Your task to perform on an android device: set the timer Image 0: 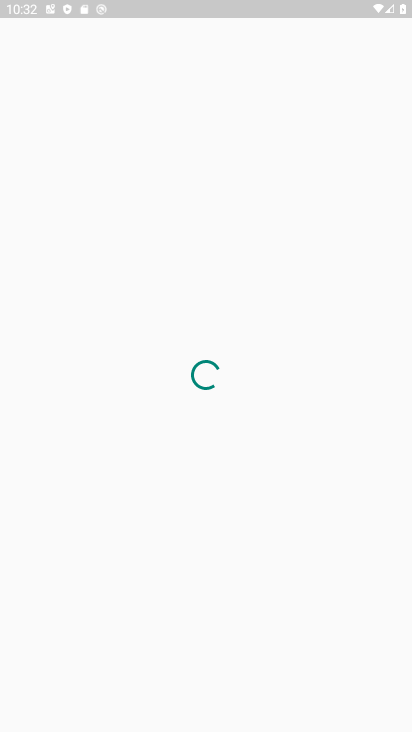
Step 0: press home button
Your task to perform on an android device: set the timer Image 1: 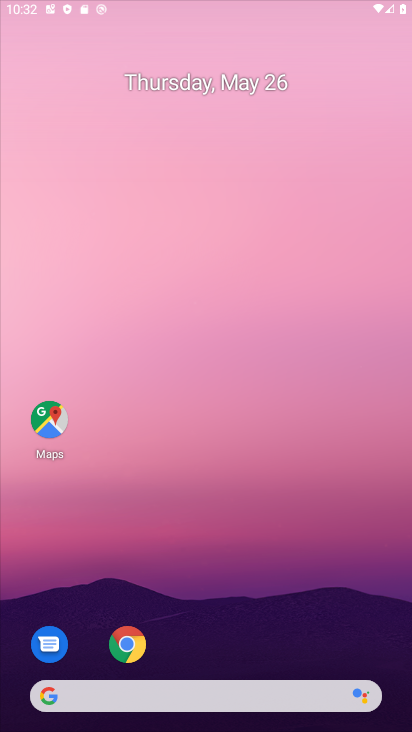
Step 1: drag from (294, 618) to (262, 53)
Your task to perform on an android device: set the timer Image 2: 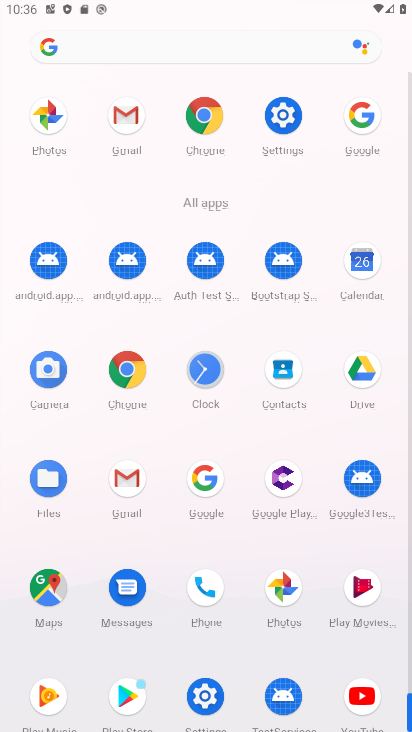
Step 2: click (205, 375)
Your task to perform on an android device: set the timer Image 3: 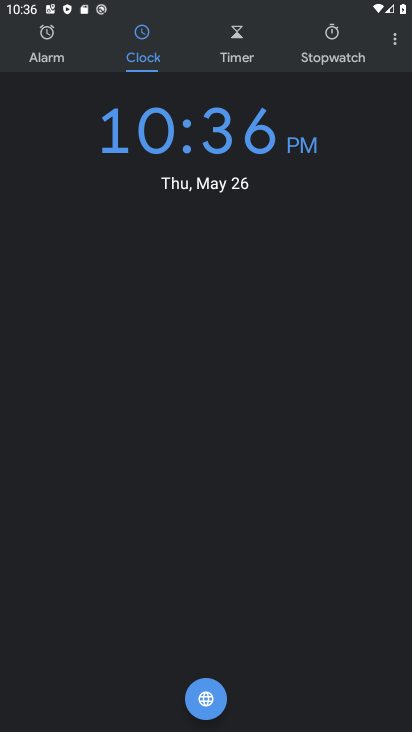
Step 3: click (394, 40)
Your task to perform on an android device: set the timer Image 4: 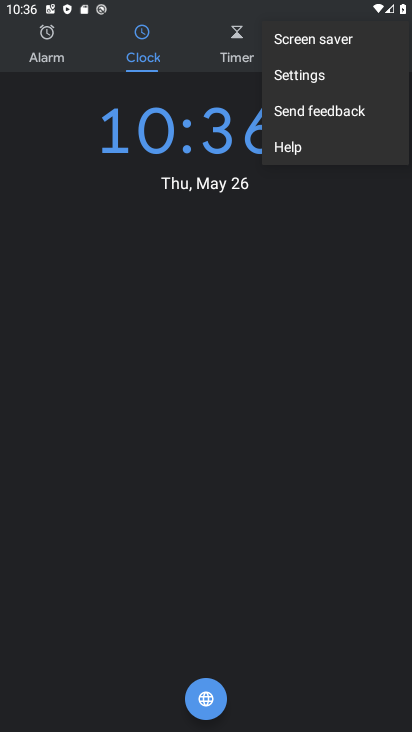
Step 4: click (293, 74)
Your task to perform on an android device: set the timer Image 5: 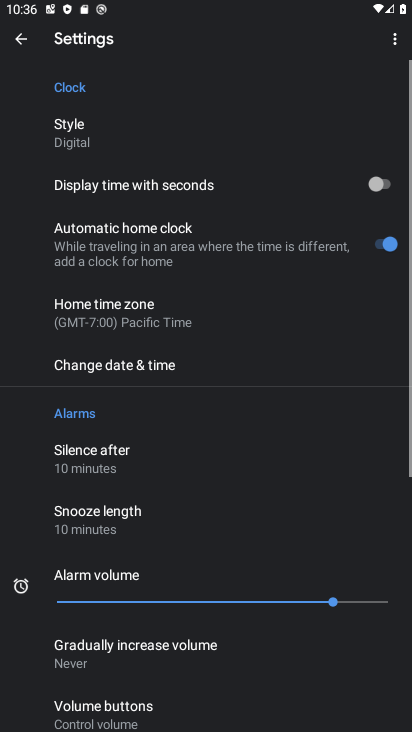
Step 5: click (127, 320)
Your task to perform on an android device: set the timer Image 6: 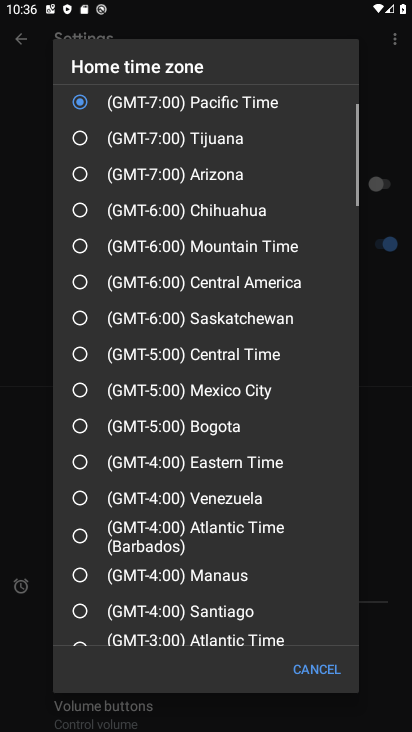
Step 6: click (139, 364)
Your task to perform on an android device: set the timer Image 7: 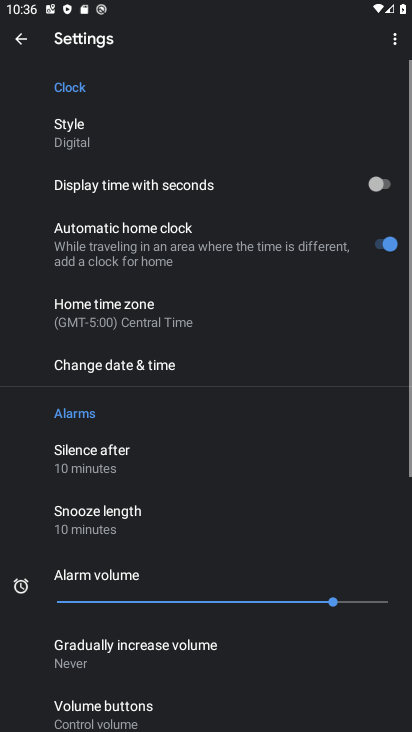
Step 7: task complete